Your task to perform on an android device: Open Google Chrome Image 0: 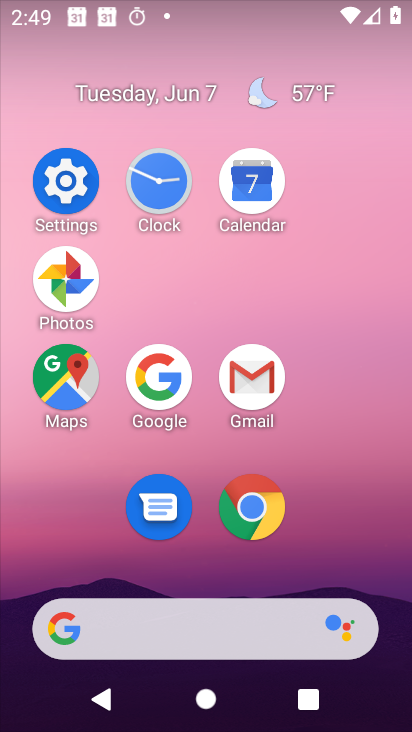
Step 0: click (246, 514)
Your task to perform on an android device: Open Google Chrome Image 1: 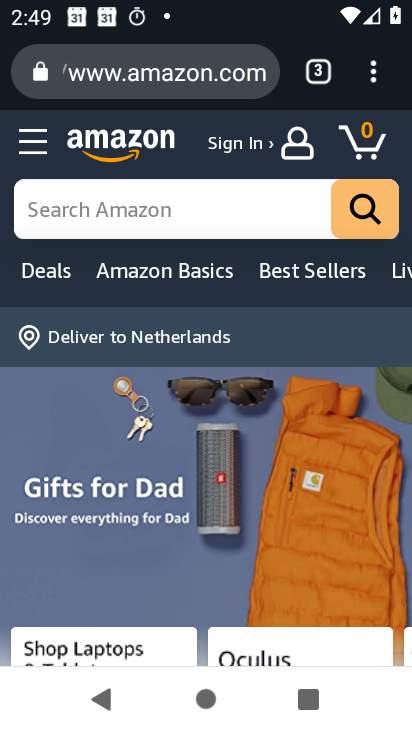
Step 1: task complete